Your task to perform on an android device: Go to location settings Image 0: 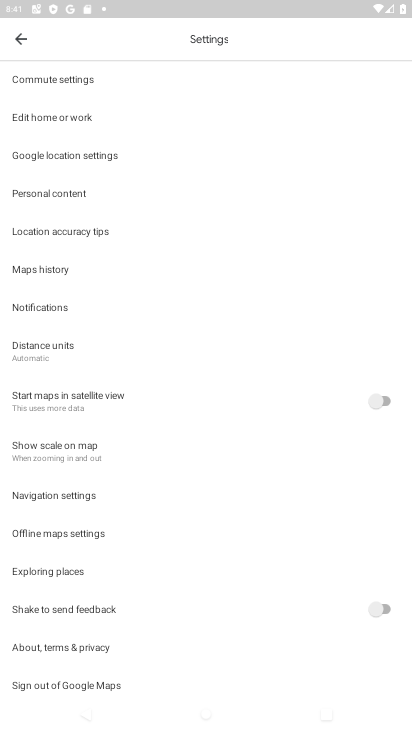
Step 0: press home button
Your task to perform on an android device: Go to location settings Image 1: 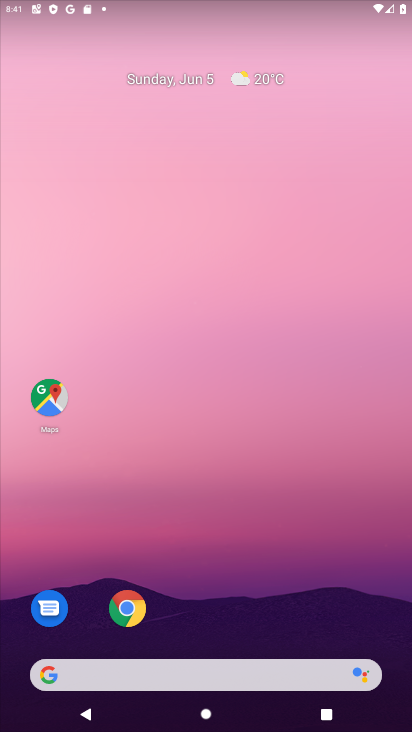
Step 1: drag from (5, 637) to (241, 192)
Your task to perform on an android device: Go to location settings Image 2: 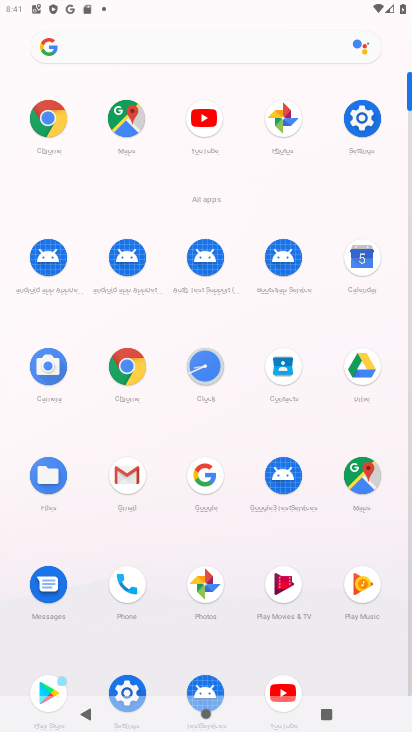
Step 2: click (376, 116)
Your task to perform on an android device: Go to location settings Image 3: 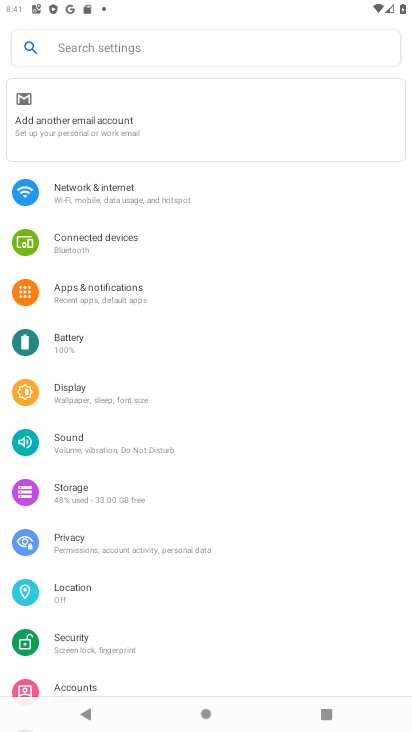
Step 3: click (48, 583)
Your task to perform on an android device: Go to location settings Image 4: 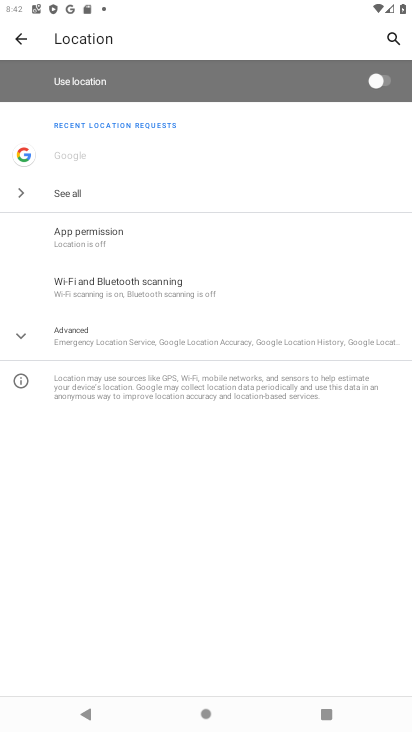
Step 4: task complete